Your task to perform on an android device: Go to Maps Image 0: 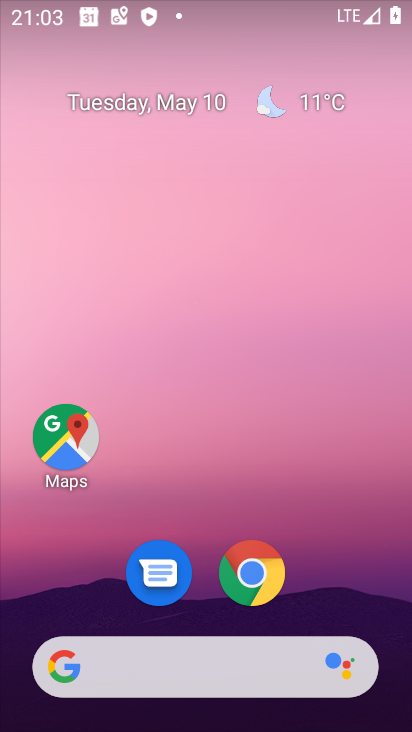
Step 0: click (61, 430)
Your task to perform on an android device: Go to Maps Image 1: 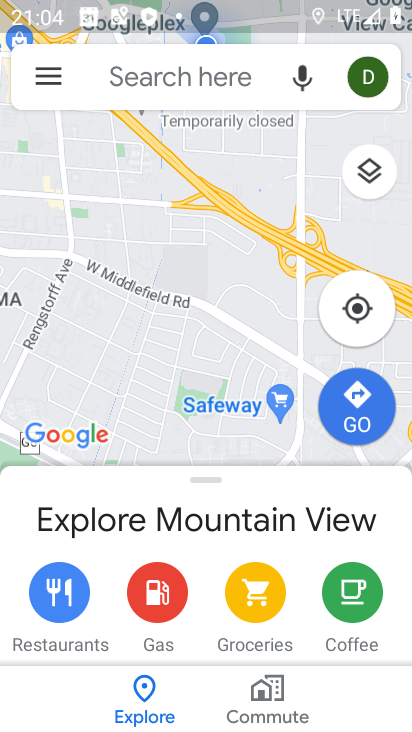
Step 1: task complete